Your task to perform on an android device: Open Yahoo.com Image 0: 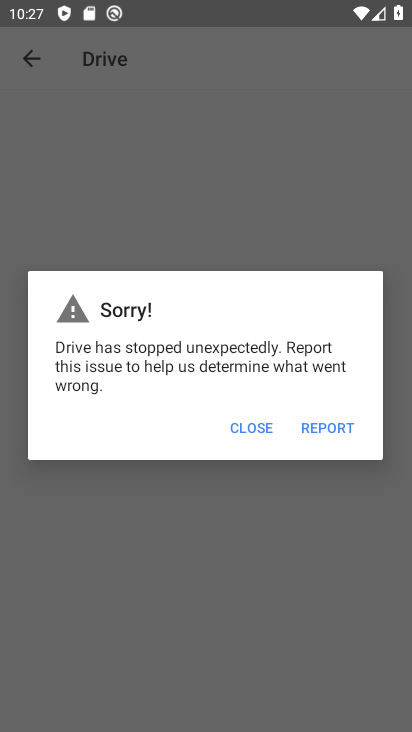
Step 0: press home button
Your task to perform on an android device: Open Yahoo.com Image 1: 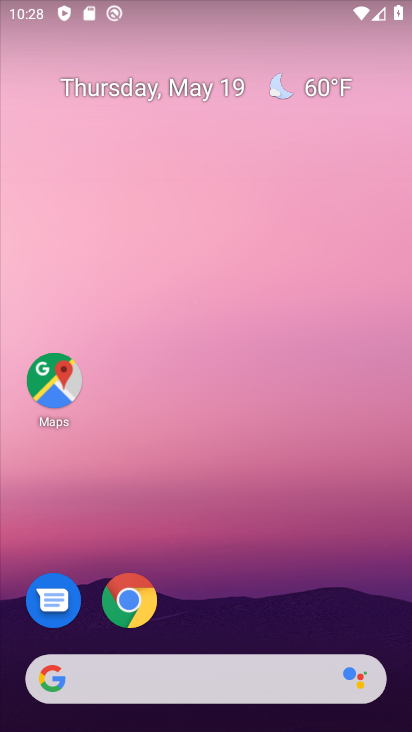
Step 1: drag from (374, 592) to (369, 183)
Your task to perform on an android device: Open Yahoo.com Image 2: 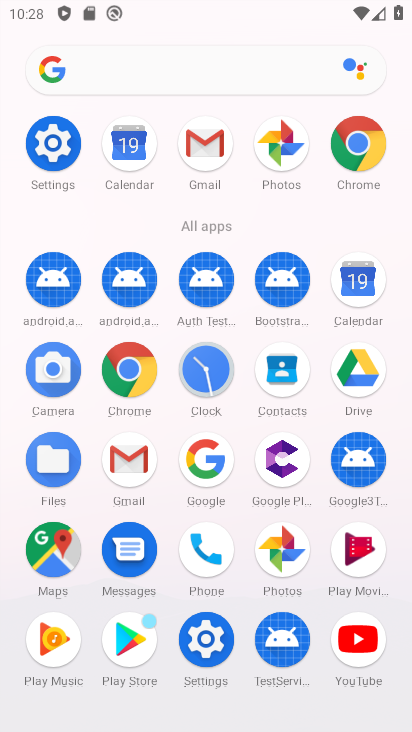
Step 2: click (128, 374)
Your task to perform on an android device: Open Yahoo.com Image 3: 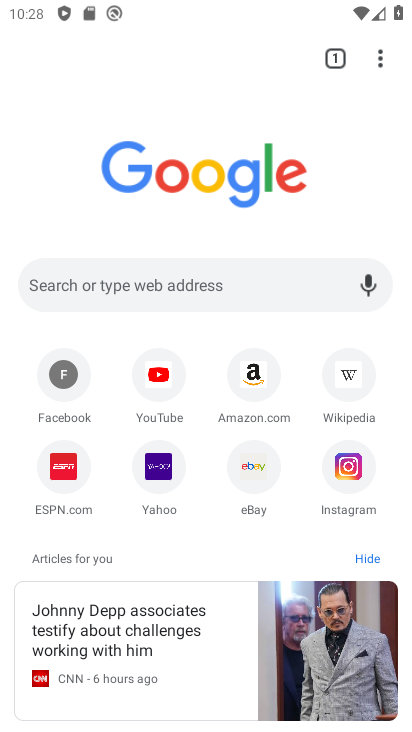
Step 3: click (161, 484)
Your task to perform on an android device: Open Yahoo.com Image 4: 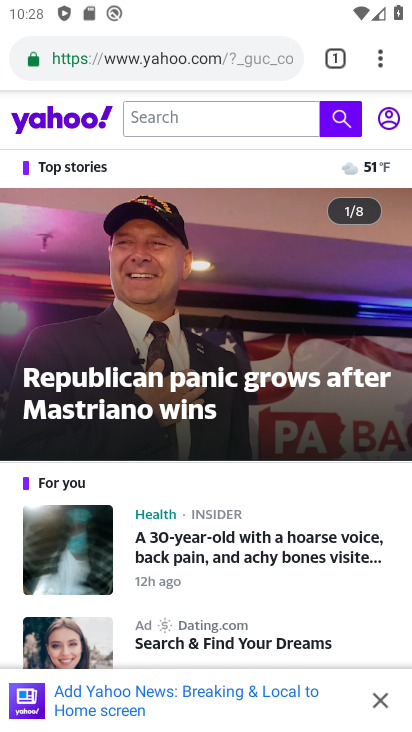
Step 4: task complete